Your task to perform on an android device: Search for sushi restaurants on Maps Image 0: 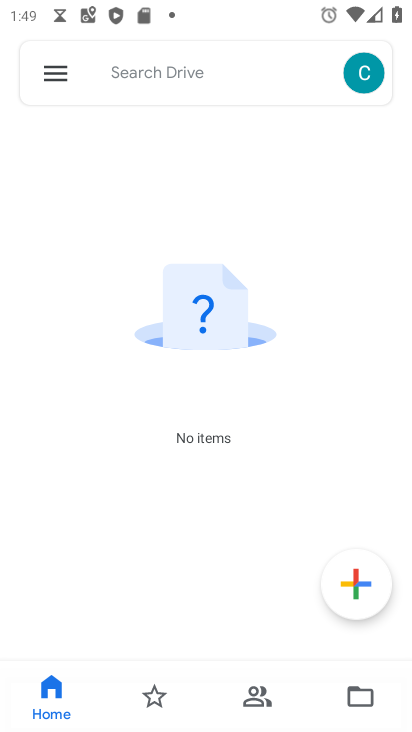
Step 0: press home button
Your task to perform on an android device: Search for sushi restaurants on Maps Image 1: 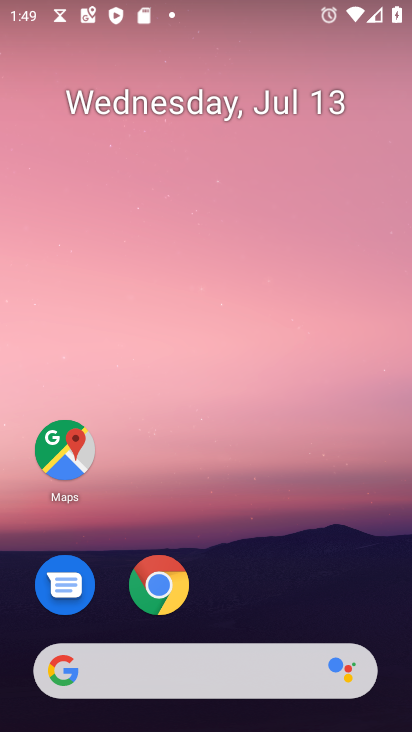
Step 1: click (67, 452)
Your task to perform on an android device: Search for sushi restaurants on Maps Image 2: 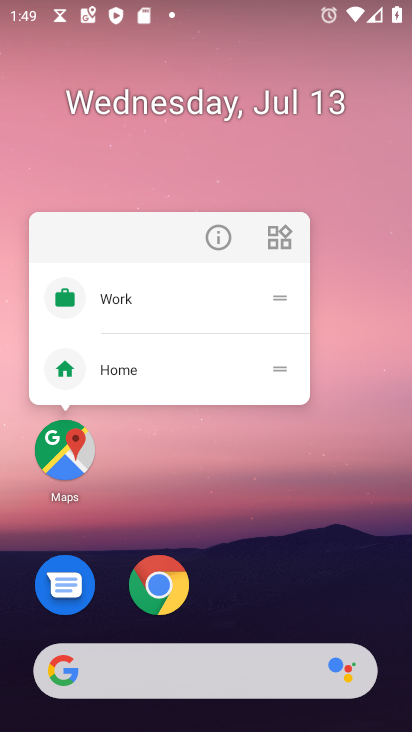
Step 2: click (67, 452)
Your task to perform on an android device: Search for sushi restaurants on Maps Image 3: 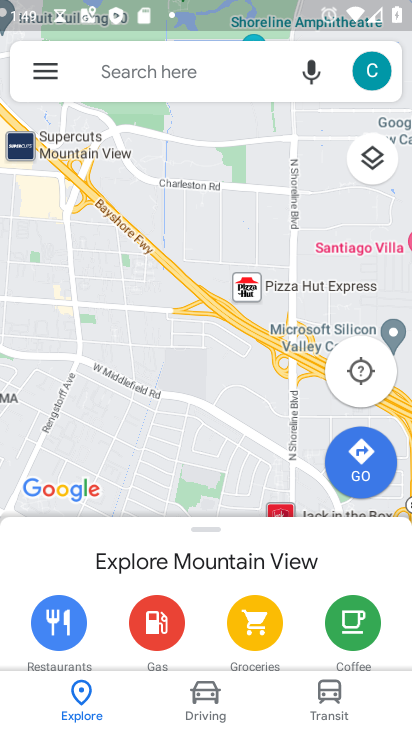
Step 3: click (171, 78)
Your task to perform on an android device: Search for sushi restaurants on Maps Image 4: 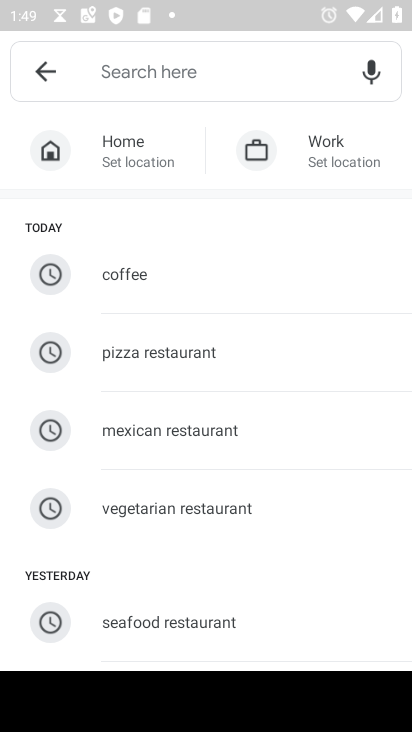
Step 4: type " sushi restaurants"
Your task to perform on an android device: Search for sushi restaurants on Maps Image 5: 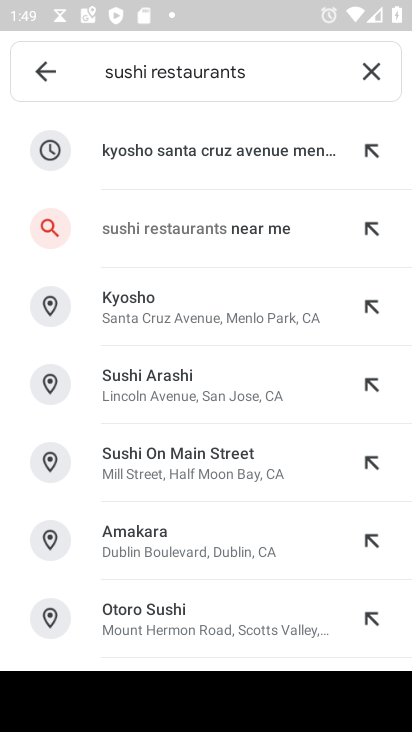
Step 5: click (163, 240)
Your task to perform on an android device: Search for sushi restaurants on Maps Image 6: 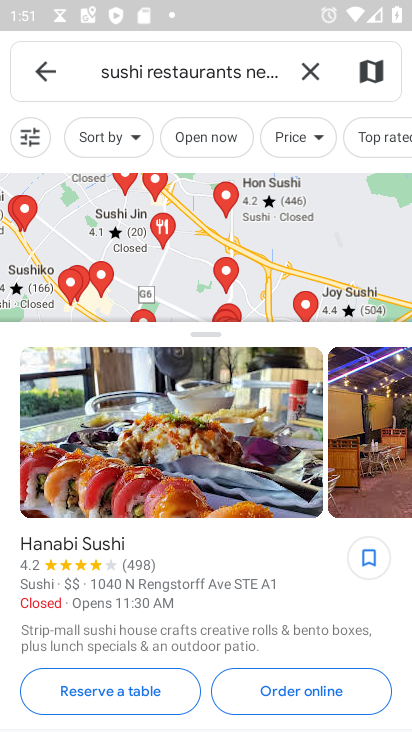
Step 6: task complete